Your task to perform on an android device: toggle airplane mode Image 0: 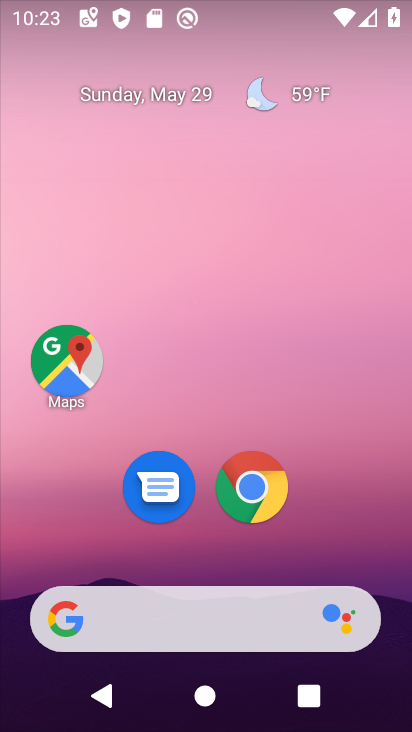
Step 0: drag from (390, 706) to (309, 225)
Your task to perform on an android device: toggle airplane mode Image 1: 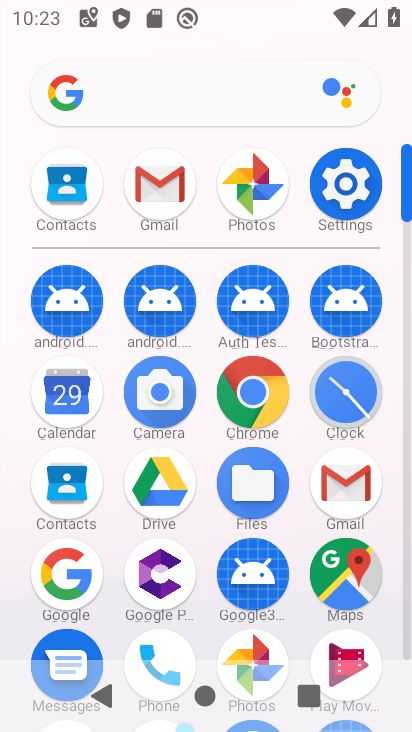
Step 1: click (343, 179)
Your task to perform on an android device: toggle airplane mode Image 2: 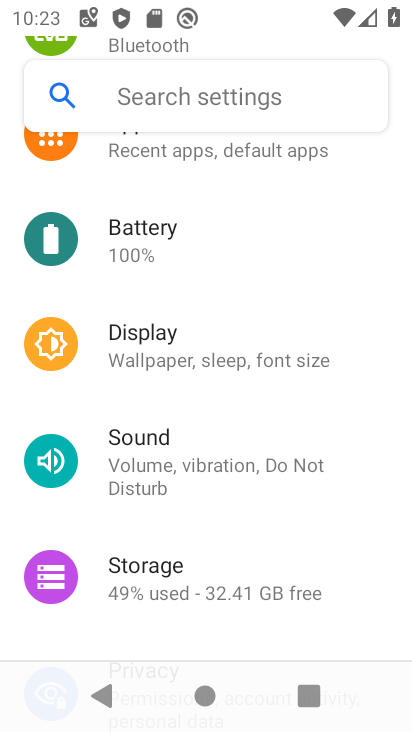
Step 2: drag from (238, 233) to (236, 664)
Your task to perform on an android device: toggle airplane mode Image 3: 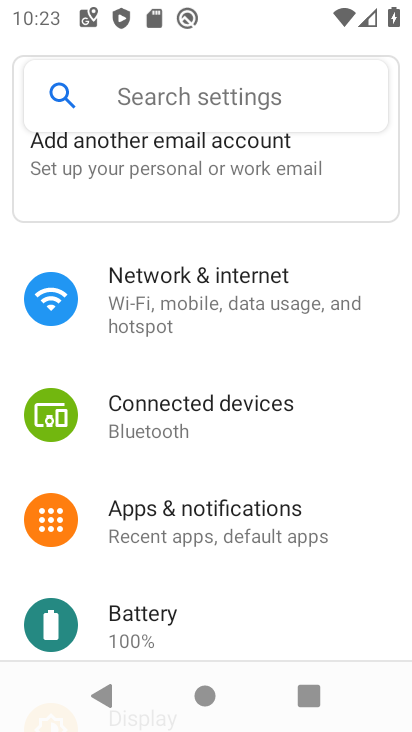
Step 3: click (179, 292)
Your task to perform on an android device: toggle airplane mode Image 4: 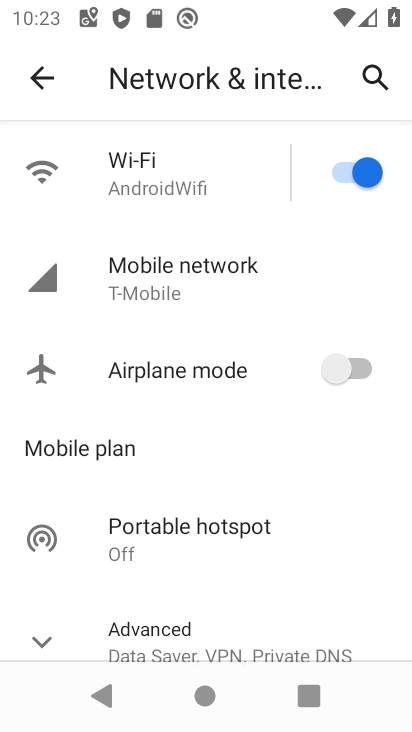
Step 4: click (351, 368)
Your task to perform on an android device: toggle airplane mode Image 5: 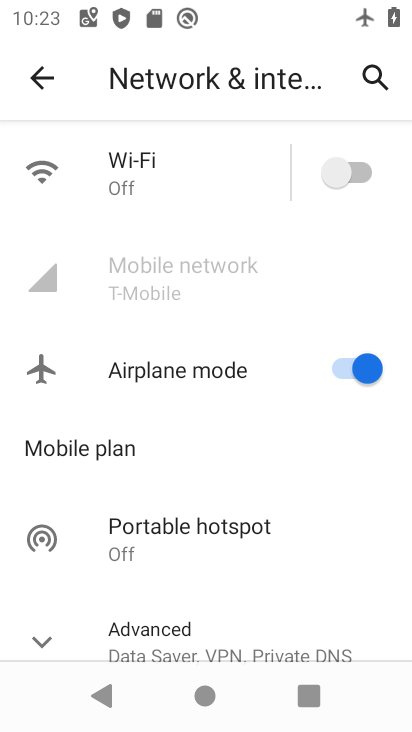
Step 5: task complete